Your task to perform on an android device: open wifi settings Image 0: 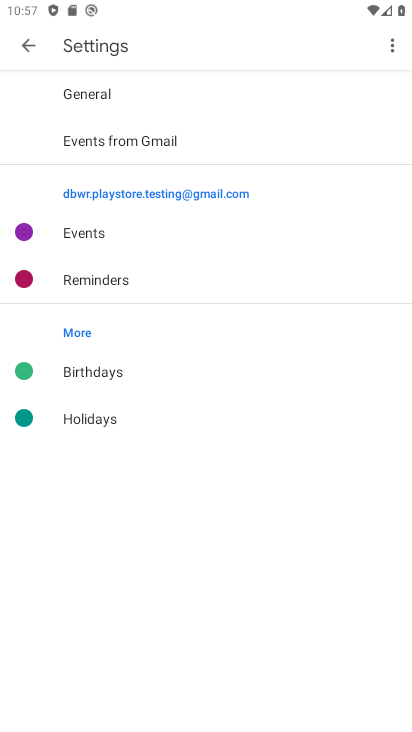
Step 0: press home button
Your task to perform on an android device: open wifi settings Image 1: 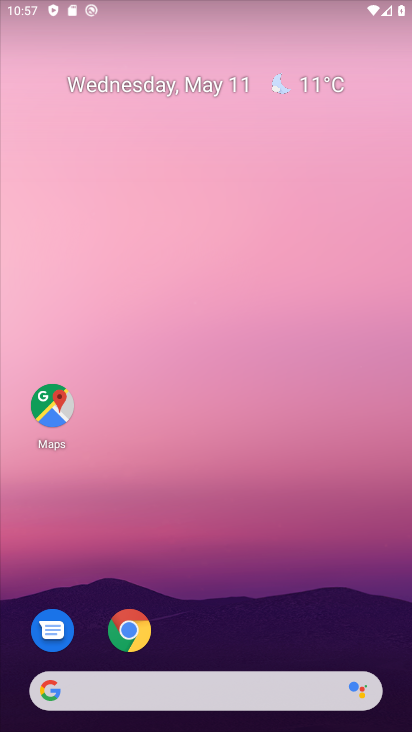
Step 1: drag from (217, 612) to (207, 236)
Your task to perform on an android device: open wifi settings Image 2: 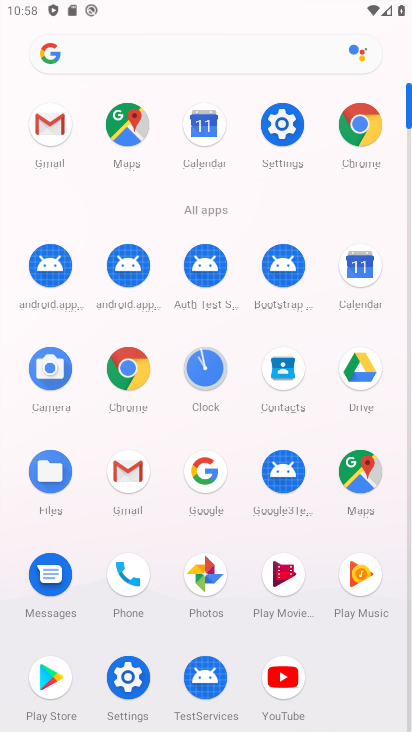
Step 2: click (272, 128)
Your task to perform on an android device: open wifi settings Image 3: 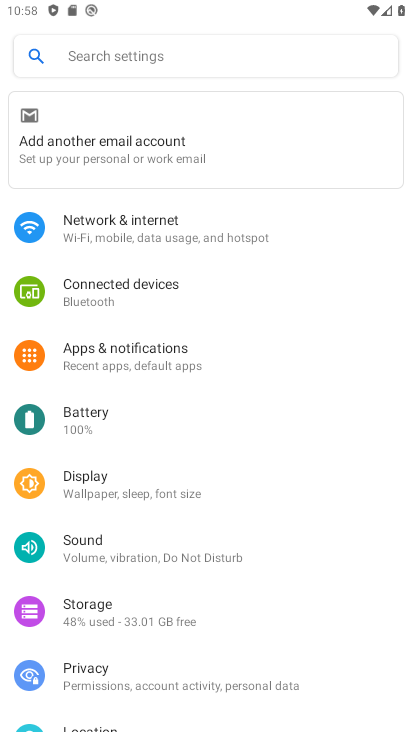
Step 3: click (156, 227)
Your task to perform on an android device: open wifi settings Image 4: 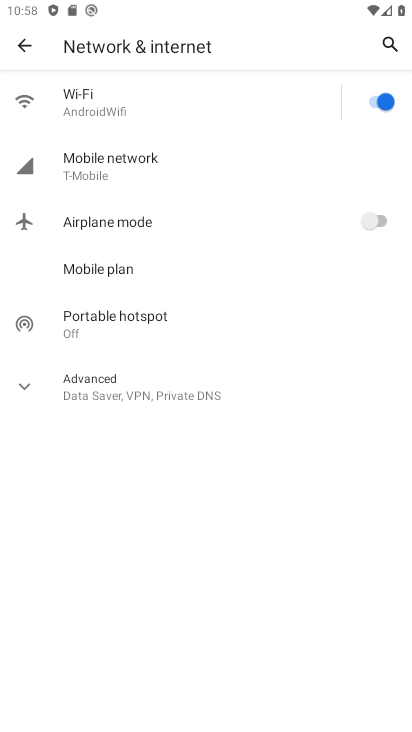
Step 4: click (83, 106)
Your task to perform on an android device: open wifi settings Image 5: 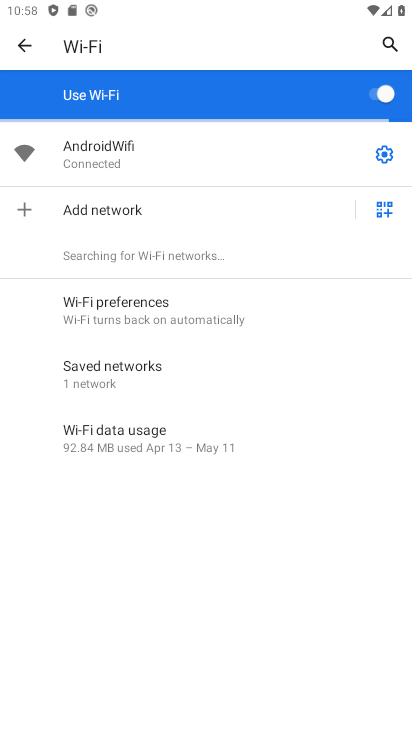
Step 5: task complete